Your task to perform on an android device: find snoozed emails in the gmail app Image 0: 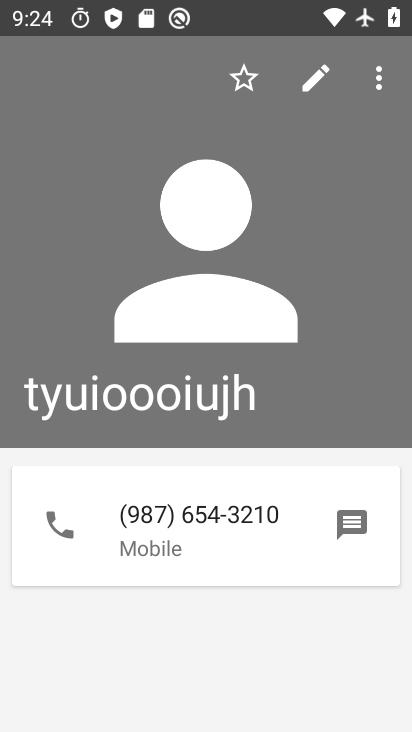
Step 0: press home button
Your task to perform on an android device: find snoozed emails in the gmail app Image 1: 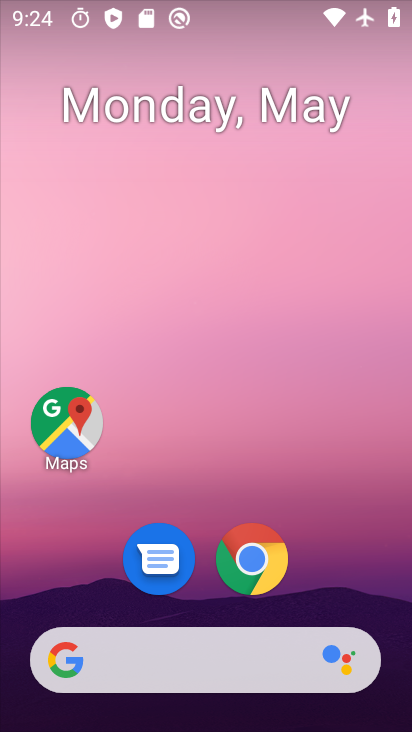
Step 1: drag from (333, 544) to (327, 63)
Your task to perform on an android device: find snoozed emails in the gmail app Image 2: 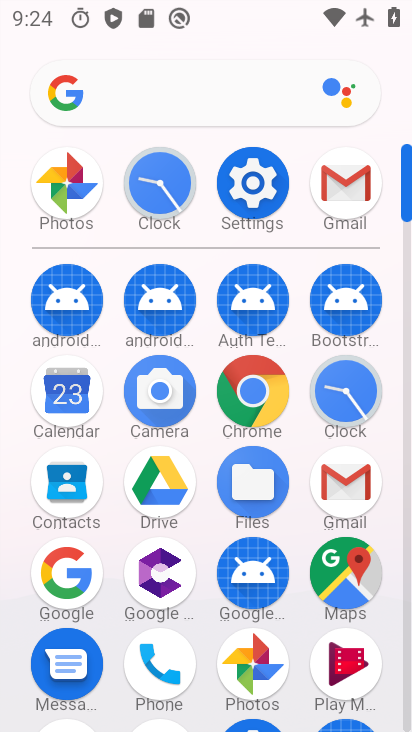
Step 2: click (351, 475)
Your task to perform on an android device: find snoozed emails in the gmail app Image 3: 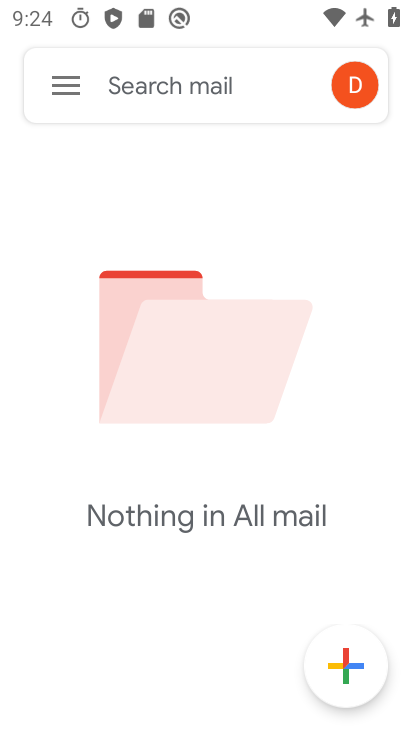
Step 3: click (67, 78)
Your task to perform on an android device: find snoozed emails in the gmail app Image 4: 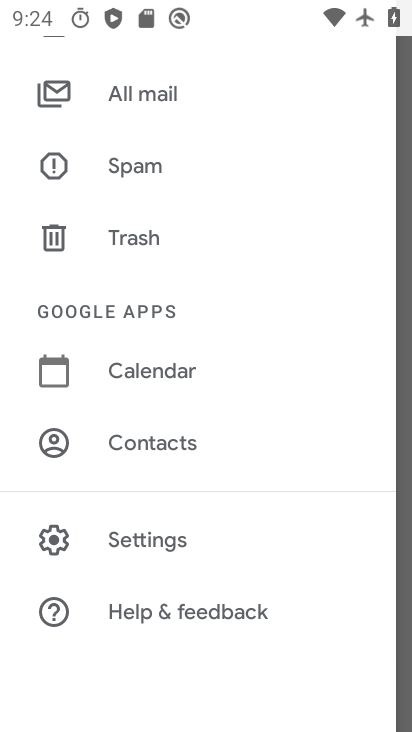
Step 4: drag from (184, 151) to (254, 437)
Your task to perform on an android device: find snoozed emails in the gmail app Image 5: 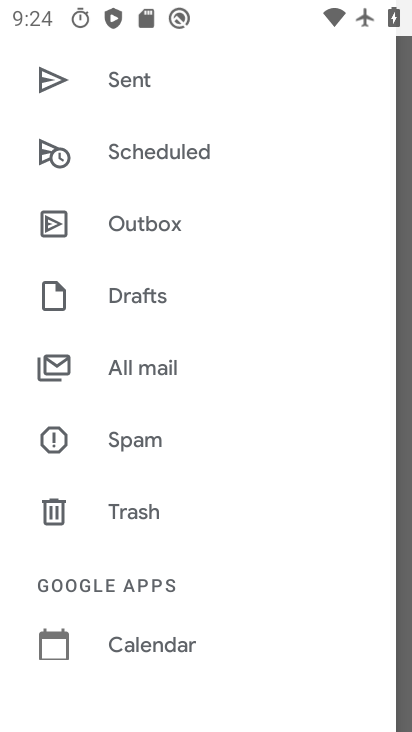
Step 5: drag from (164, 227) to (191, 434)
Your task to perform on an android device: find snoozed emails in the gmail app Image 6: 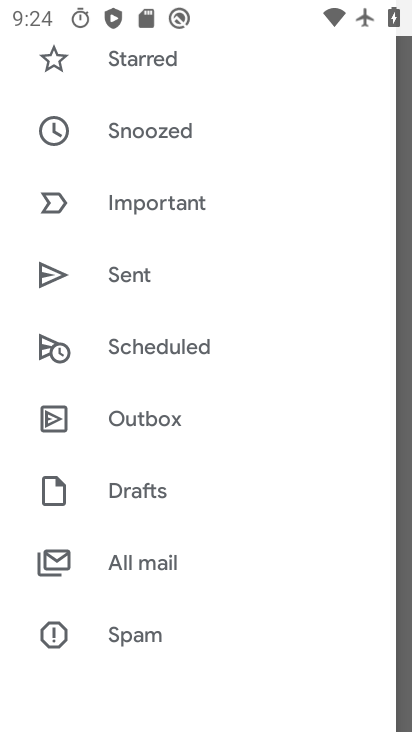
Step 6: click (176, 145)
Your task to perform on an android device: find snoozed emails in the gmail app Image 7: 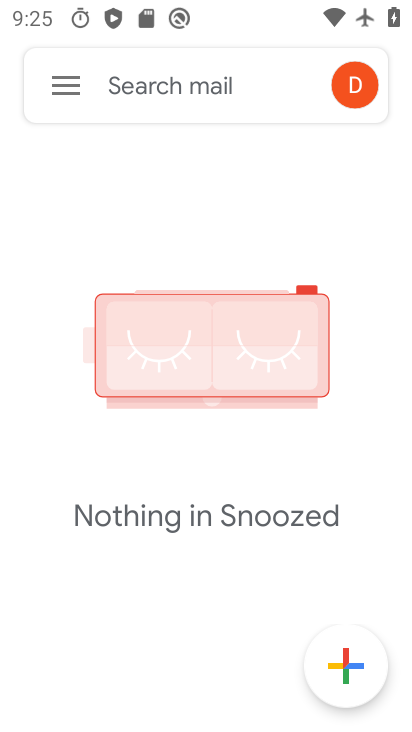
Step 7: task complete